Your task to perform on an android device: Open Youtube and go to the subscriptions tab Image 0: 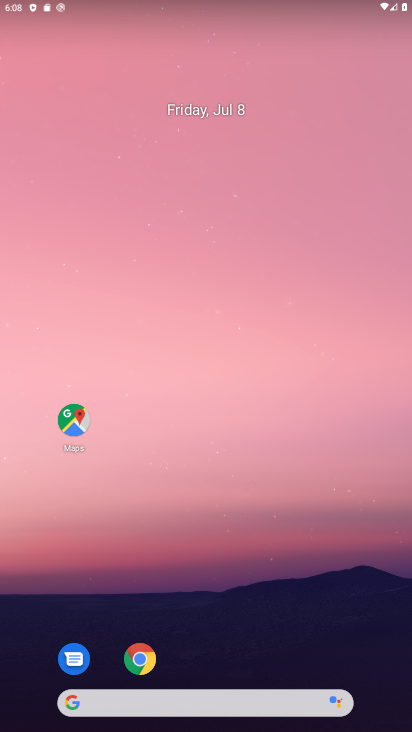
Step 0: drag from (238, 691) to (210, 24)
Your task to perform on an android device: Open Youtube and go to the subscriptions tab Image 1: 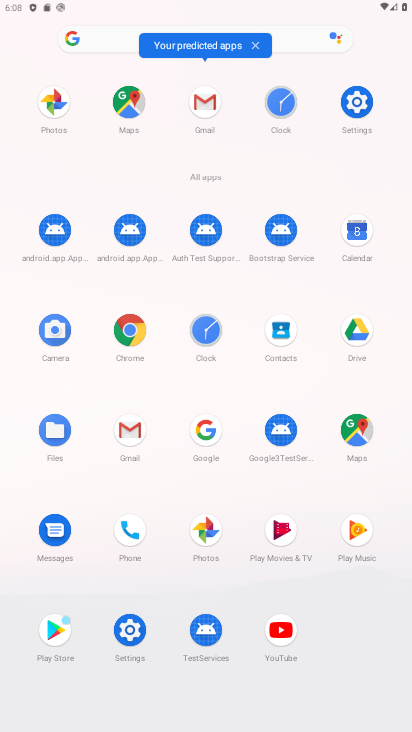
Step 1: click (278, 632)
Your task to perform on an android device: Open Youtube and go to the subscriptions tab Image 2: 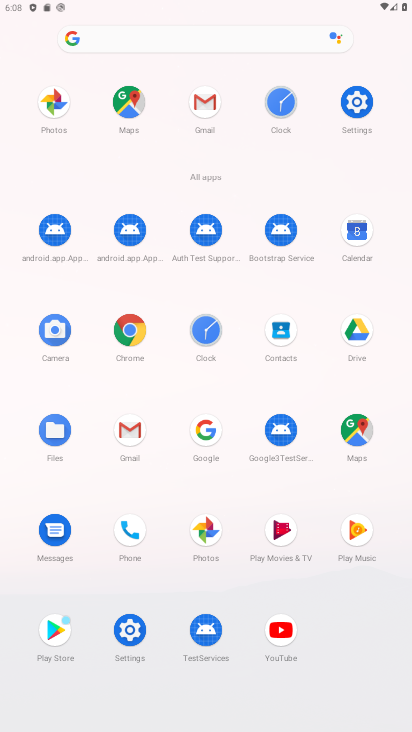
Step 2: click (278, 632)
Your task to perform on an android device: Open Youtube and go to the subscriptions tab Image 3: 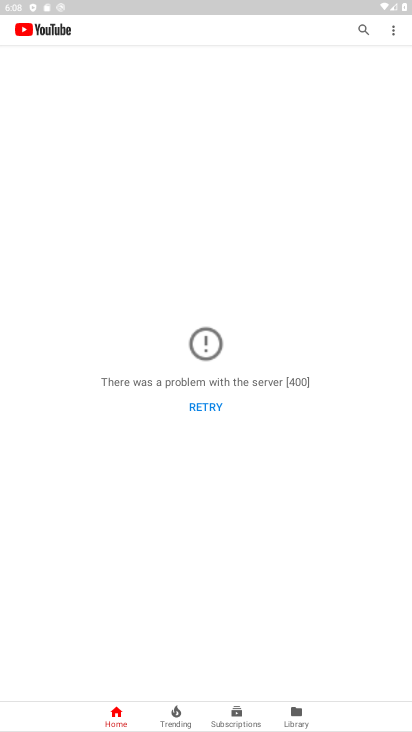
Step 3: click (221, 403)
Your task to perform on an android device: Open Youtube and go to the subscriptions tab Image 4: 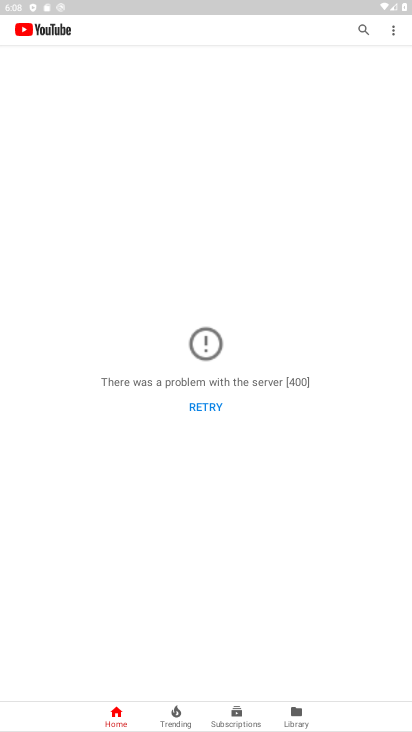
Step 4: task complete